Your task to perform on an android device: find snoozed emails in the gmail app Image 0: 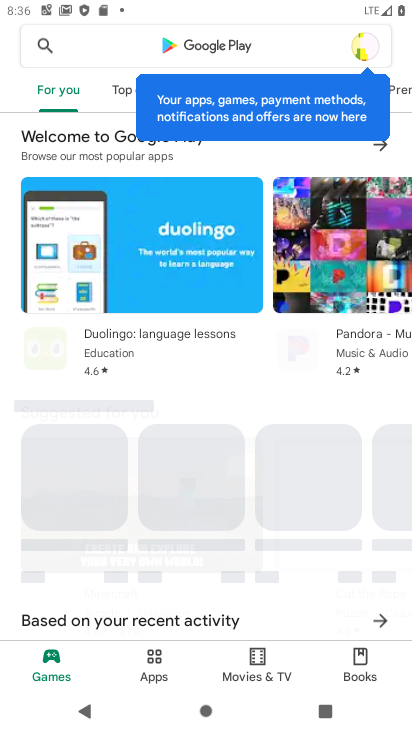
Step 0: press home button
Your task to perform on an android device: find snoozed emails in the gmail app Image 1: 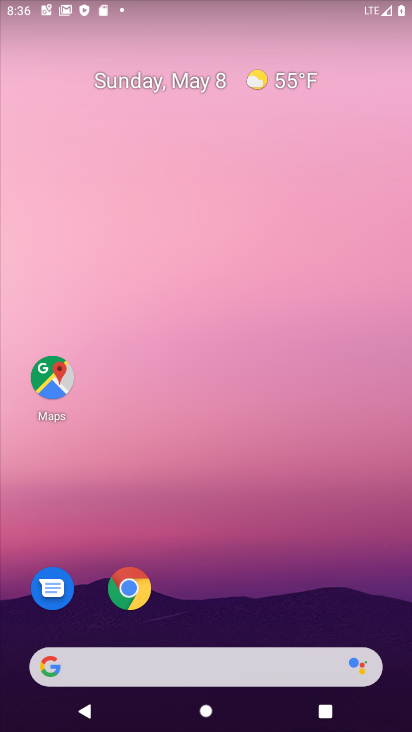
Step 1: drag from (380, 621) to (192, 73)
Your task to perform on an android device: find snoozed emails in the gmail app Image 2: 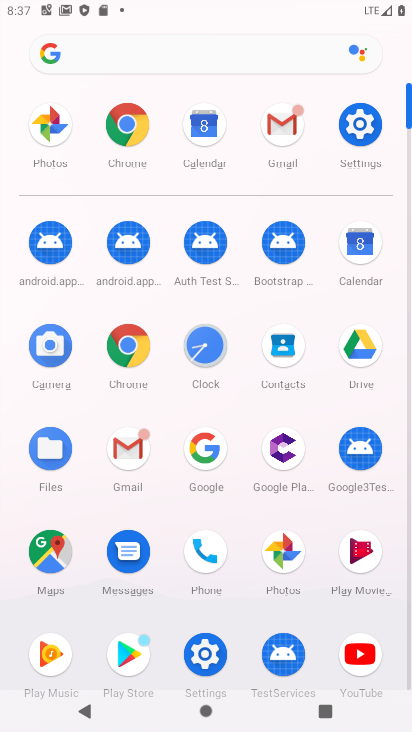
Step 2: click (136, 458)
Your task to perform on an android device: find snoozed emails in the gmail app Image 3: 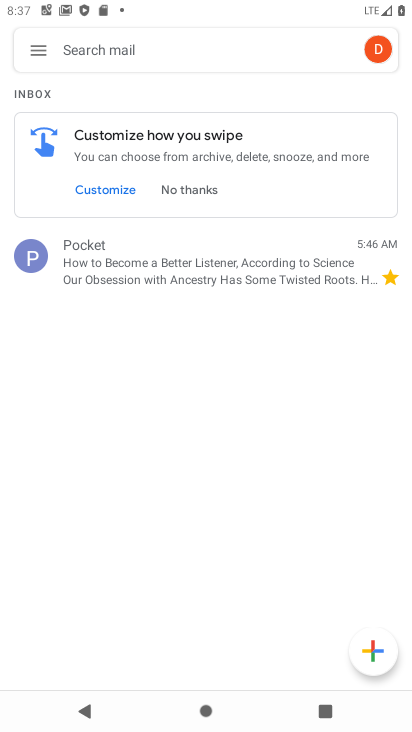
Step 3: click (48, 52)
Your task to perform on an android device: find snoozed emails in the gmail app Image 4: 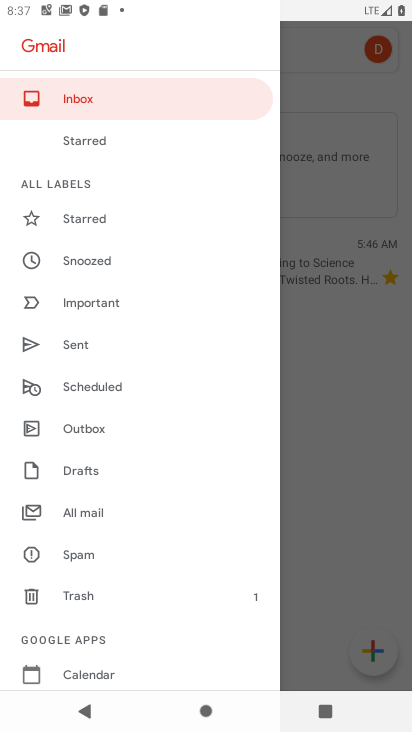
Step 4: click (134, 259)
Your task to perform on an android device: find snoozed emails in the gmail app Image 5: 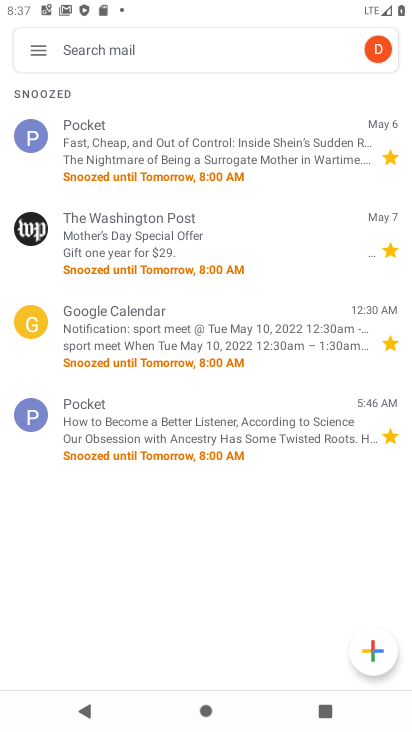
Step 5: task complete